Your task to perform on an android device: See recent photos Image 0: 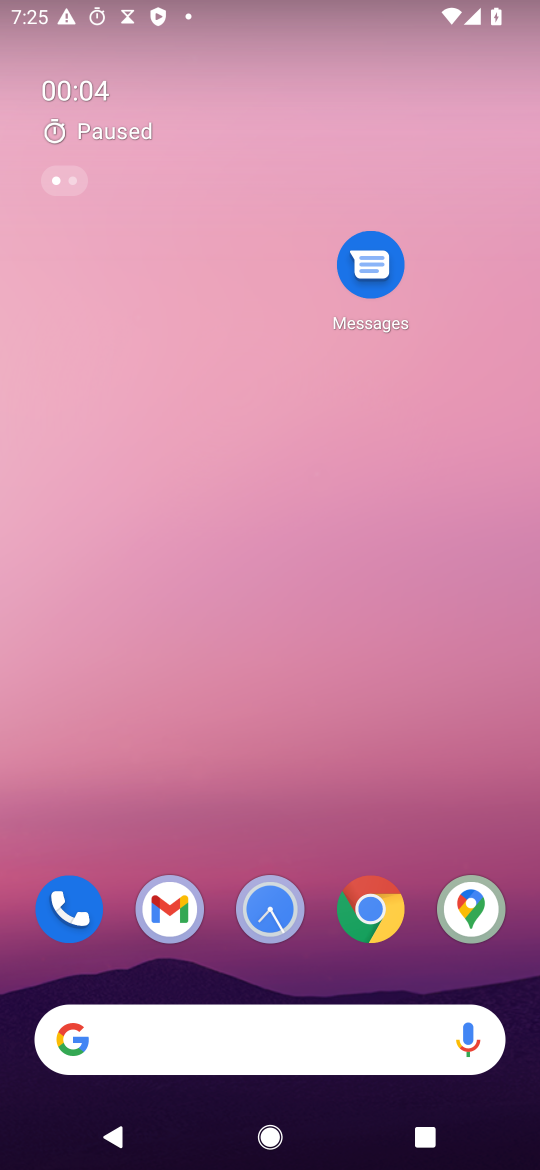
Step 0: drag from (241, 1059) to (338, 57)
Your task to perform on an android device: See recent photos Image 1: 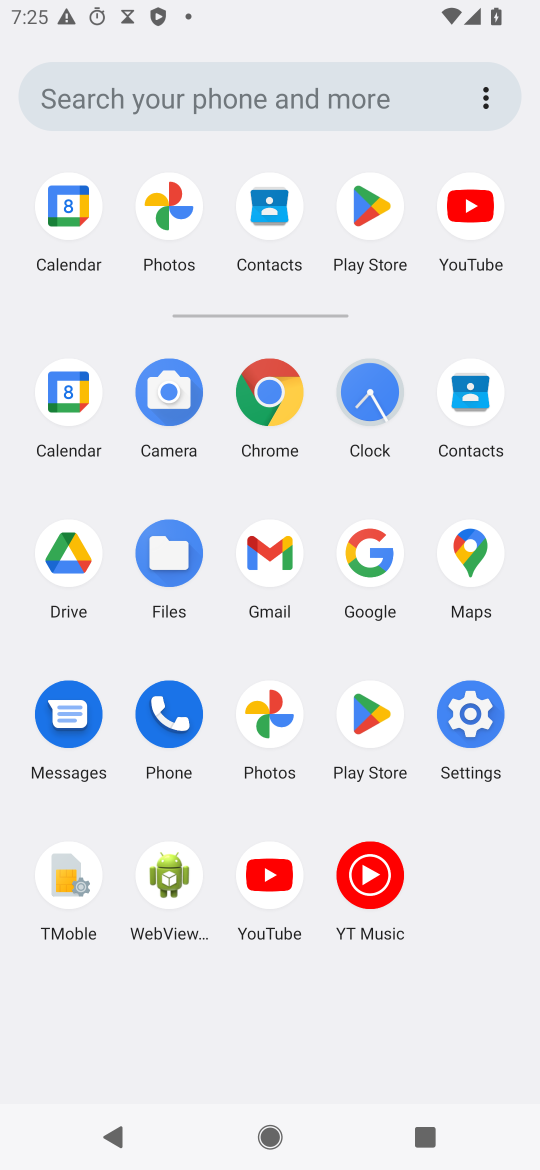
Step 1: click (276, 727)
Your task to perform on an android device: See recent photos Image 2: 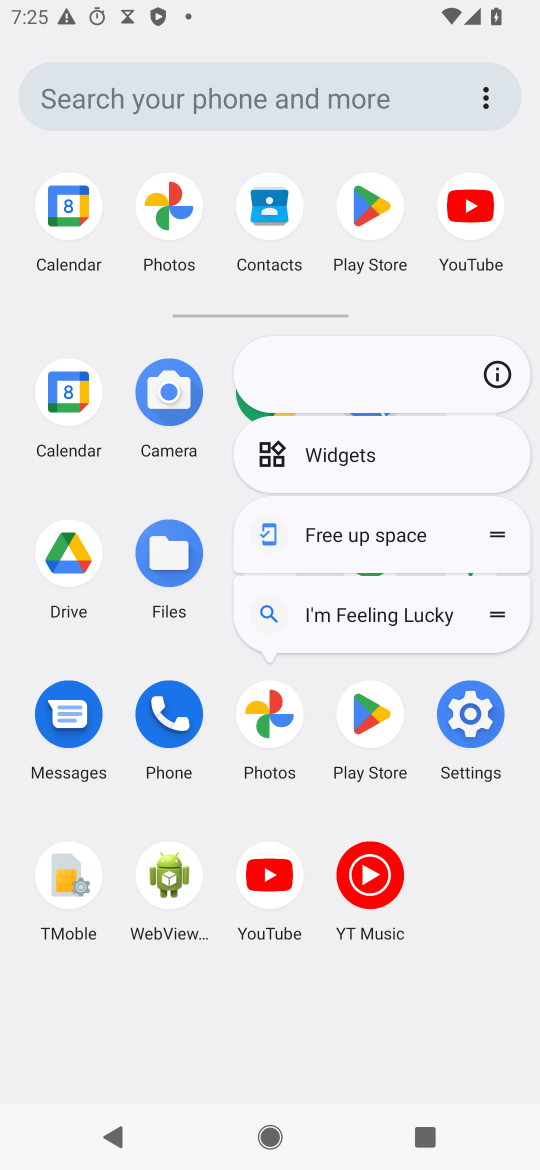
Step 2: click (276, 712)
Your task to perform on an android device: See recent photos Image 3: 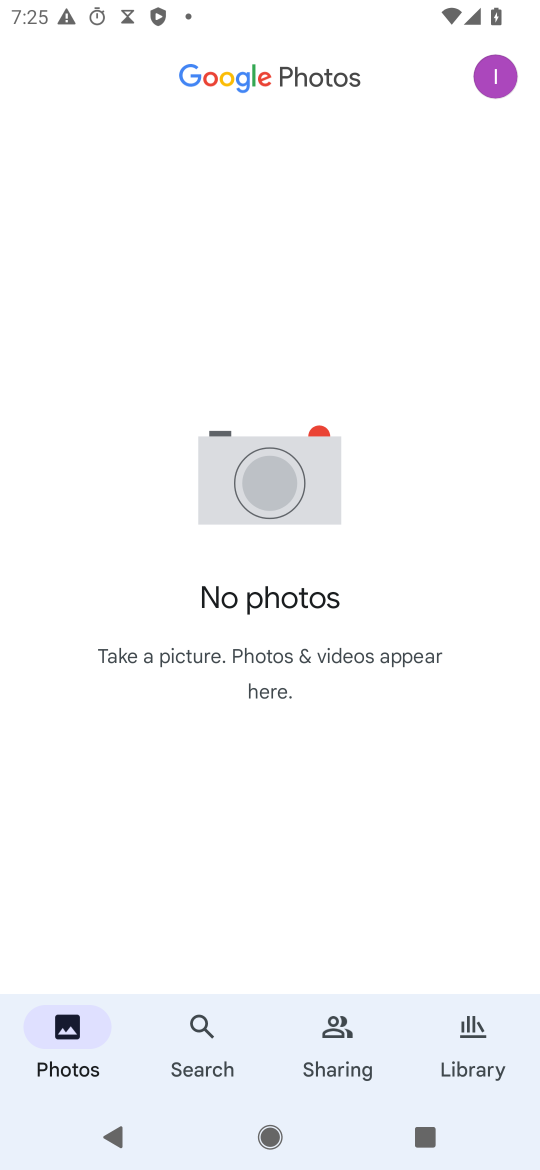
Step 3: click (210, 1056)
Your task to perform on an android device: See recent photos Image 4: 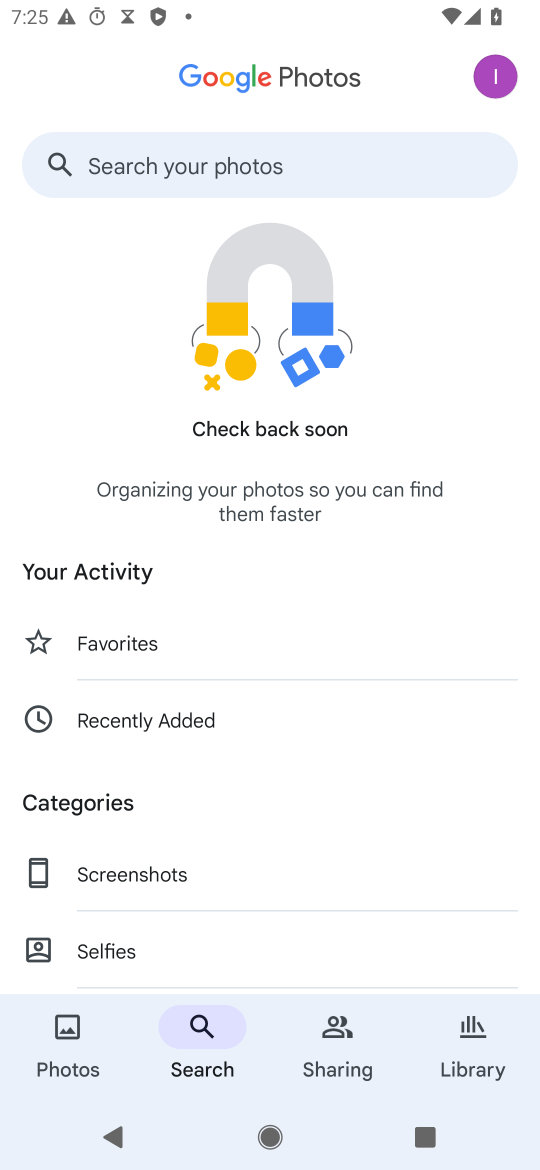
Step 4: click (135, 716)
Your task to perform on an android device: See recent photos Image 5: 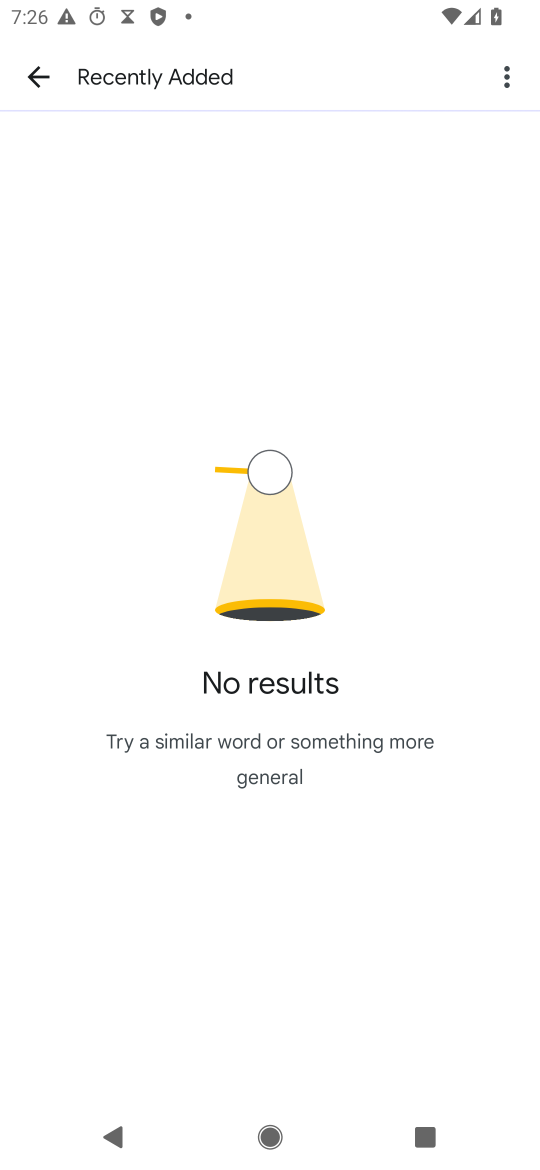
Step 5: task complete